Your task to perform on an android device: turn on airplane mode Image 0: 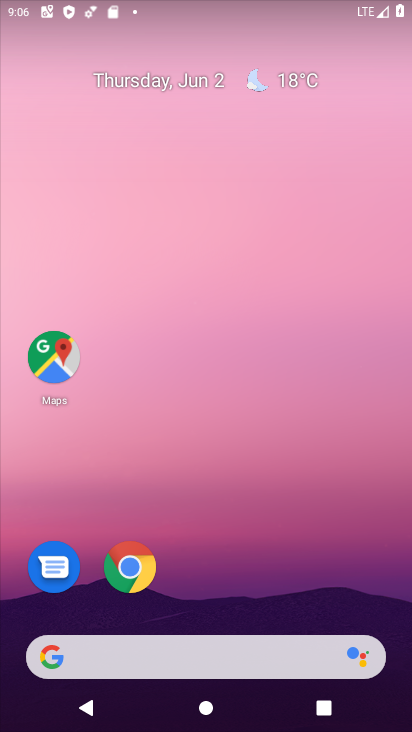
Step 0: drag from (213, 616) to (240, 160)
Your task to perform on an android device: turn on airplane mode Image 1: 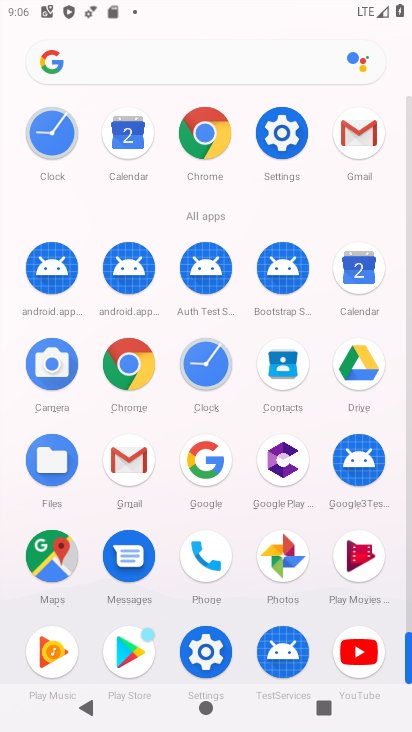
Step 1: drag from (312, 9) to (332, 411)
Your task to perform on an android device: turn on airplane mode Image 2: 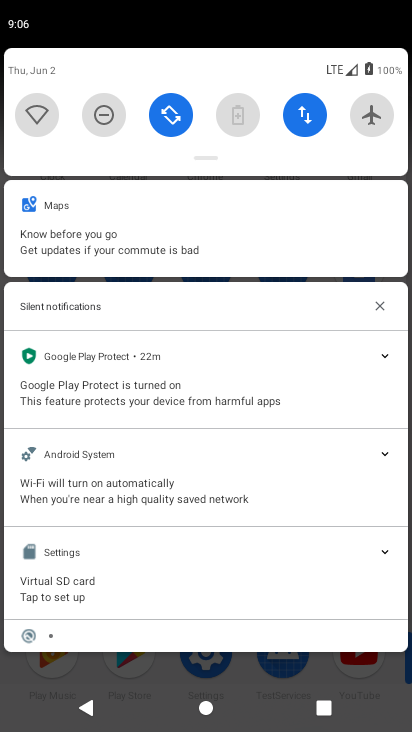
Step 2: click (375, 116)
Your task to perform on an android device: turn on airplane mode Image 3: 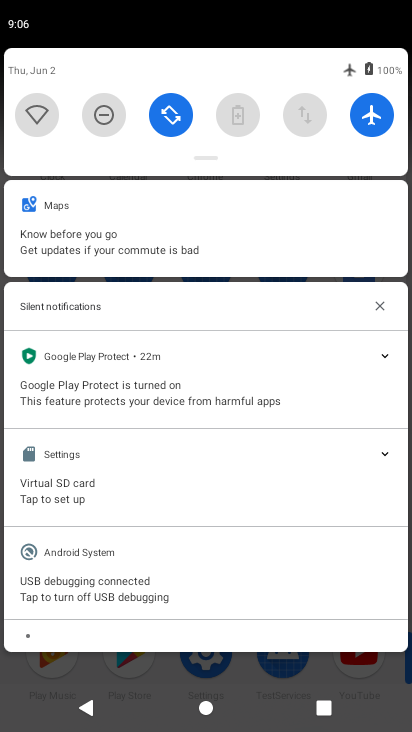
Step 3: task complete